Your task to perform on an android device: Go to CNN.com Image 0: 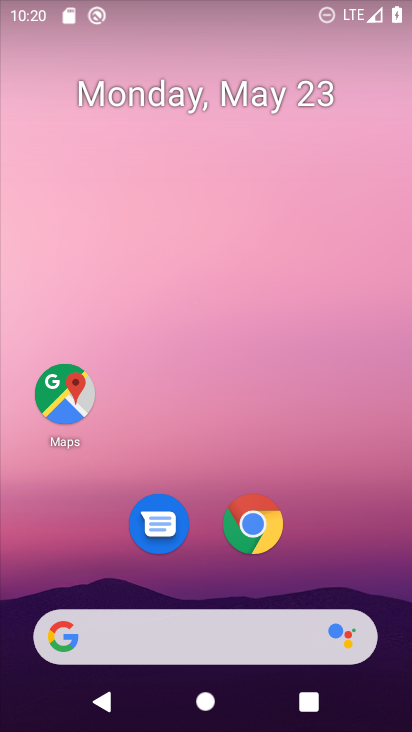
Step 0: click (266, 636)
Your task to perform on an android device: Go to CNN.com Image 1: 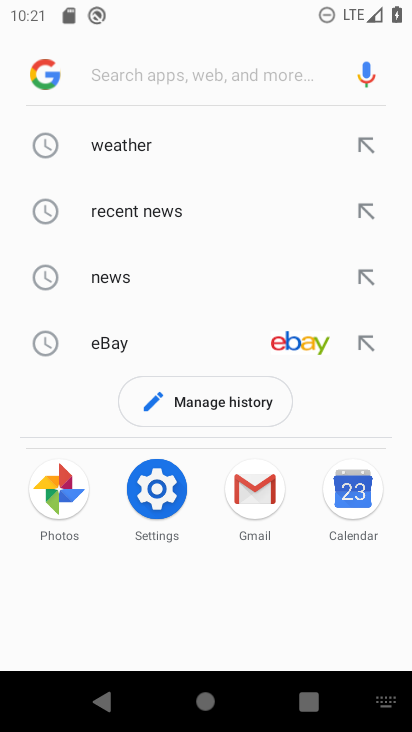
Step 1: type "cnn.com"
Your task to perform on an android device: Go to CNN.com Image 2: 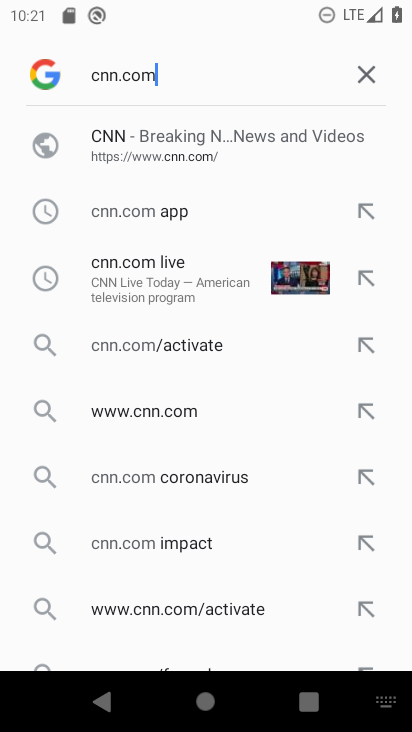
Step 2: click (113, 141)
Your task to perform on an android device: Go to CNN.com Image 3: 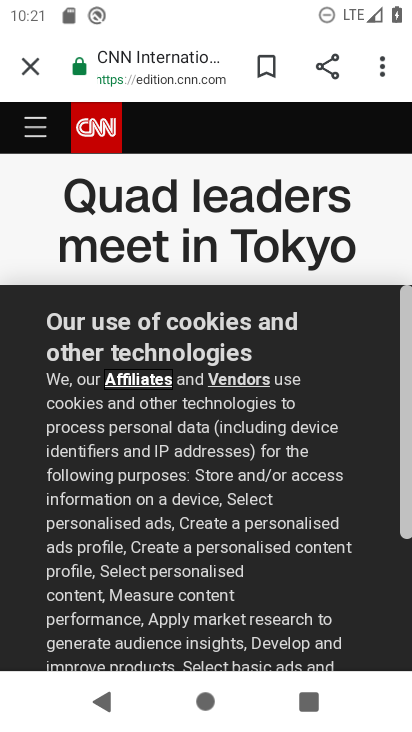
Step 3: task complete